Your task to perform on an android device: turn off location history Image 0: 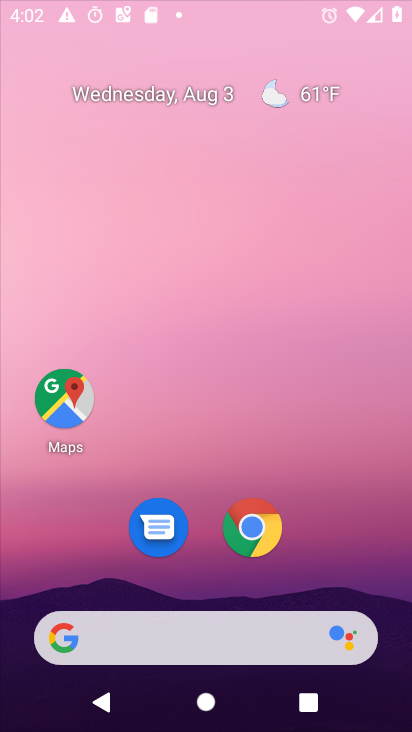
Step 0: drag from (359, 498) to (345, 105)
Your task to perform on an android device: turn off location history Image 1: 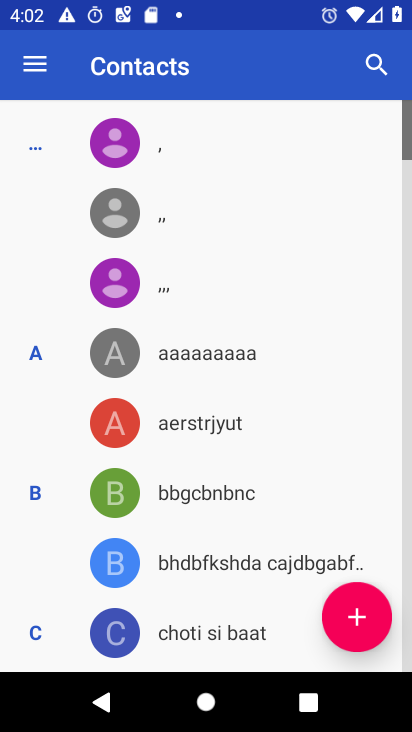
Step 1: press home button
Your task to perform on an android device: turn off location history Image 2: 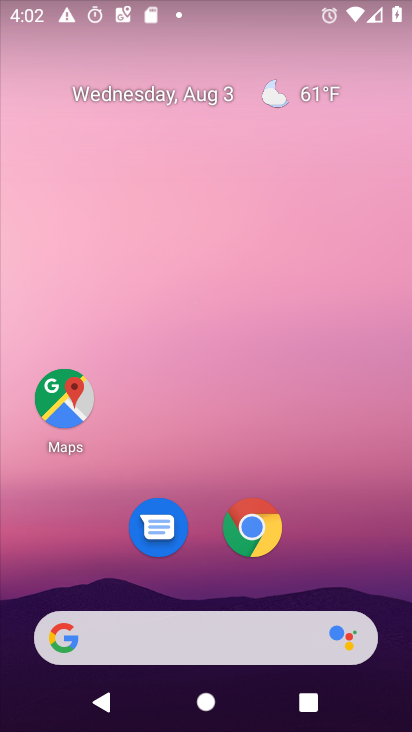
Step 2: drag from (349, 550) to (360, 84)
Your task to perform on an android device: turn off location history Image 3: 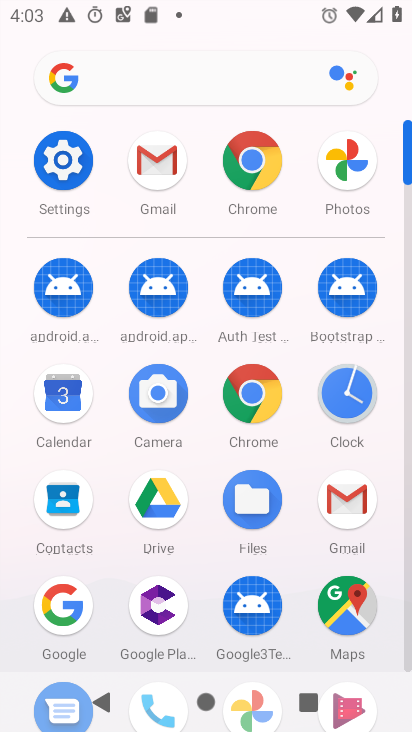
Step 3: click (70, 150)
Your task to perform on an android device: turn off location history Image 4: 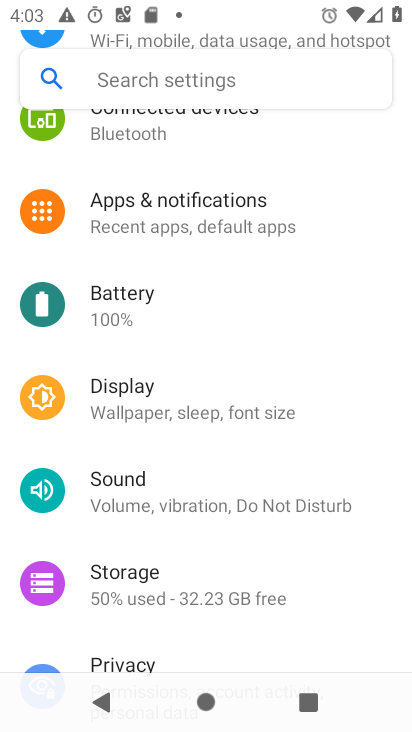
Step 4: drag from (245, 432) to (337, 111)
Your task to perform on an android device: turn off location history Image 5: 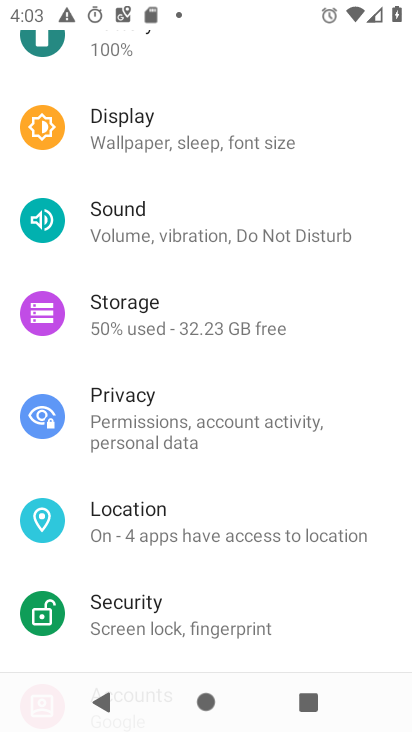
Step 5: click (126, 533)
Your task to perform on an android device: turn off location history Image 6: 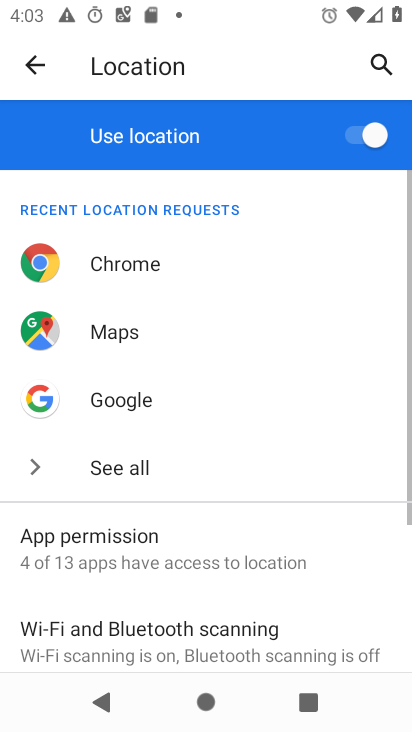
Step 6: drag from (301, 566) to (349, 101)
Your task to perform on an android device: turn off location history Image 7: 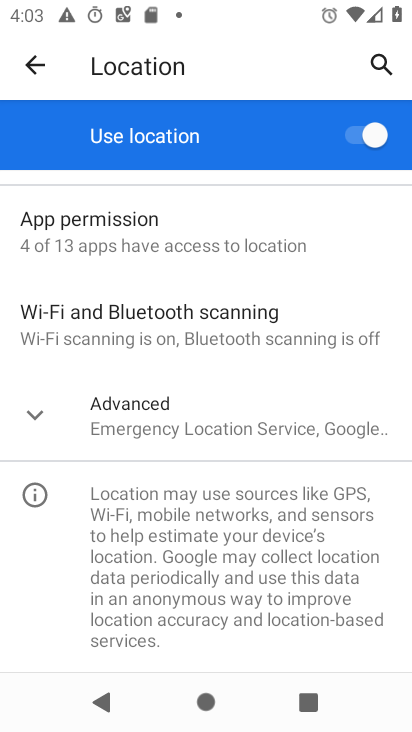
Step 7: click (181, 444)
Your task to perform on an android device: turn off location history Image 8: 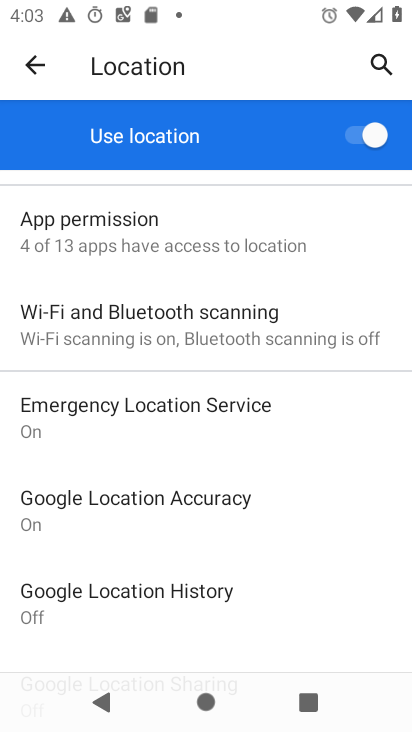
Step 8: click (206, 591)
Your task to perform on an android device: turn off location history Image 9: 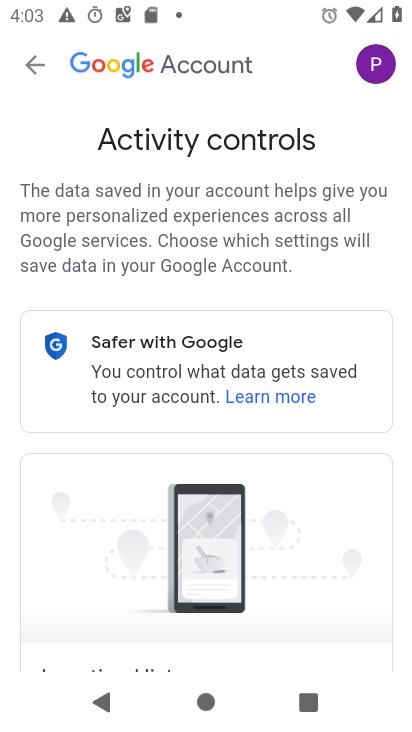
Step 9: task complete